Your task to perform on an android device: set the stopwatch Image 0: 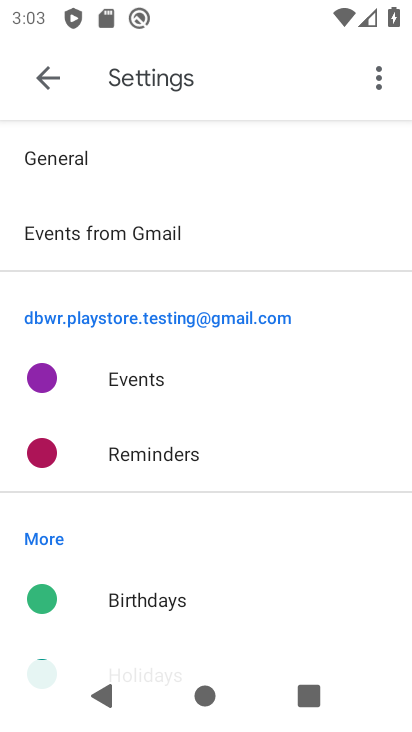
Step 0: press home button
Your task to perform on an android device: set the stopwatch Image 1: 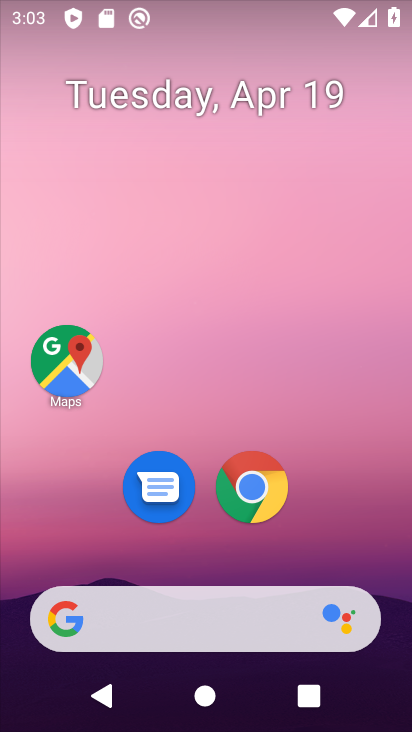
Step 1: drag from (204, 461) to (235, 12)
Your task to perform on an android device: set the stopwatch Image 2: 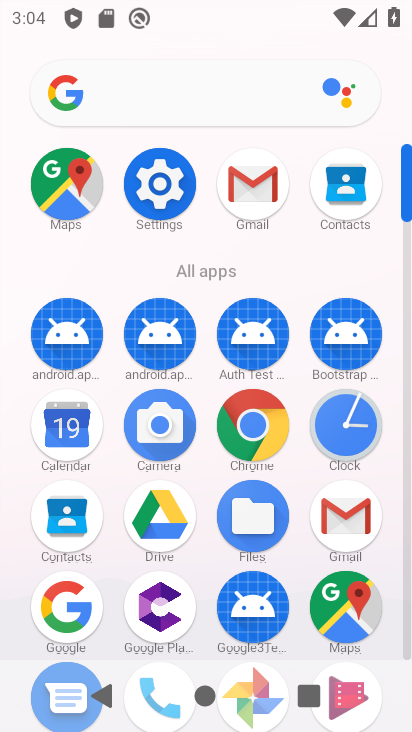
Step 2: click (346, 433)
Your task to perform on an android device: set the stopwatch Image 3: 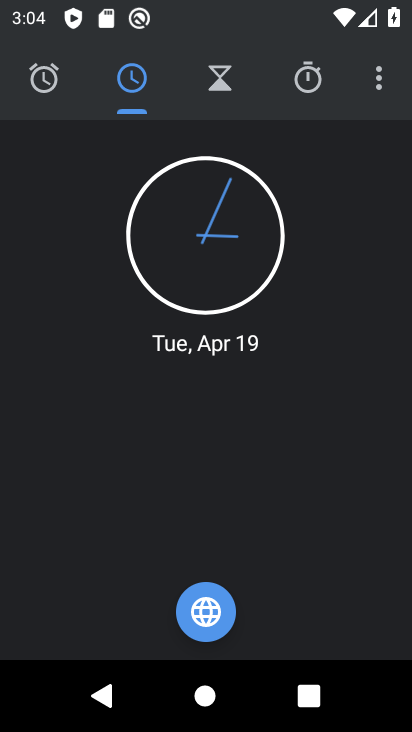
Step 3: click (312, 81)
Your task to perform on an android device: set the stopwatch Image 4: 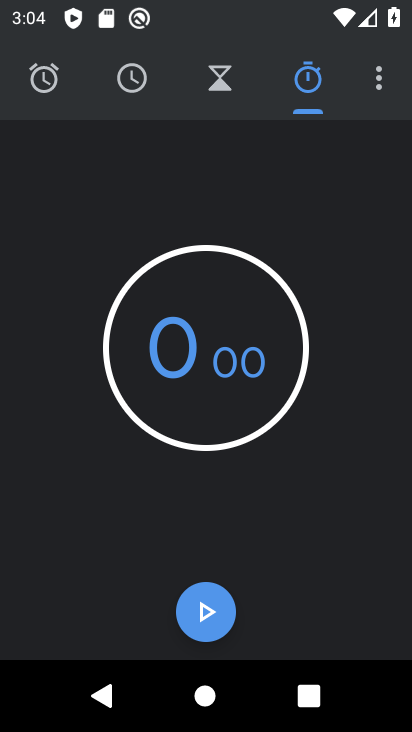
Step 4: click (204, 340)
Your task to perform on an android device: set the stopwatch Image 5: 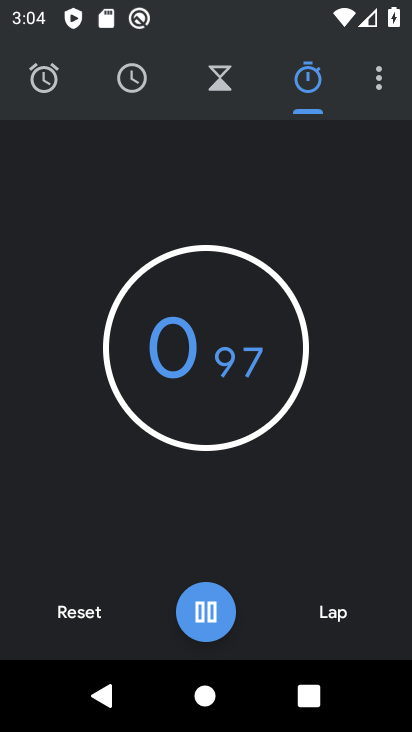
Step 5: click (204, 340)
Your task to perform on an android device: set the stopwatch Image 6: 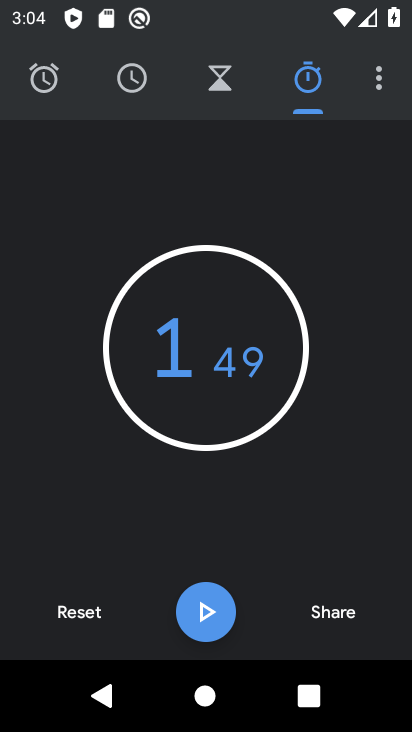
Step 6: task complete